Your task to perform on an android device: check battery use Image 0: 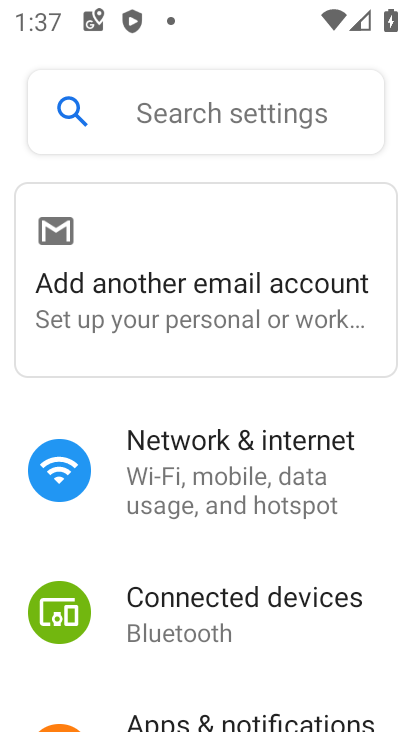
Step 0: drag from (183, 654) to (237, 354)
Your task to perform on an android device: check battery use Image 1: 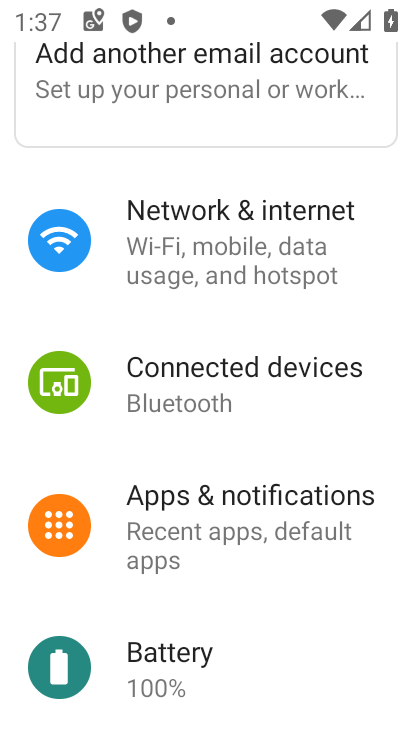
Step 1: click (209, 687)
Your task to perform on an android device: check battery use Image 2: 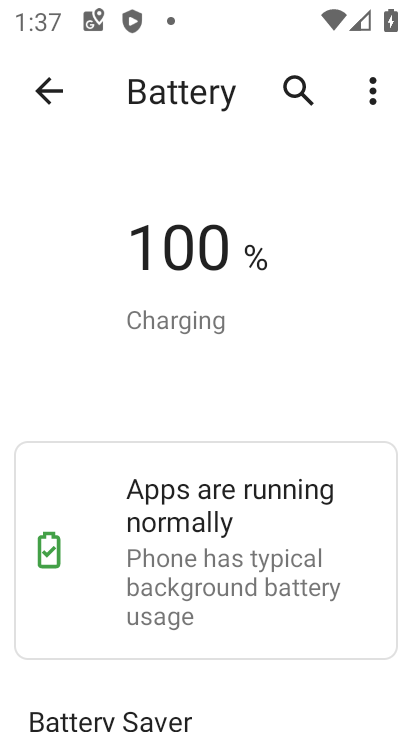
Step 2: drag from (209, 687) to (260, 451)
Your task to perform on an android device: check battery use Image 3: 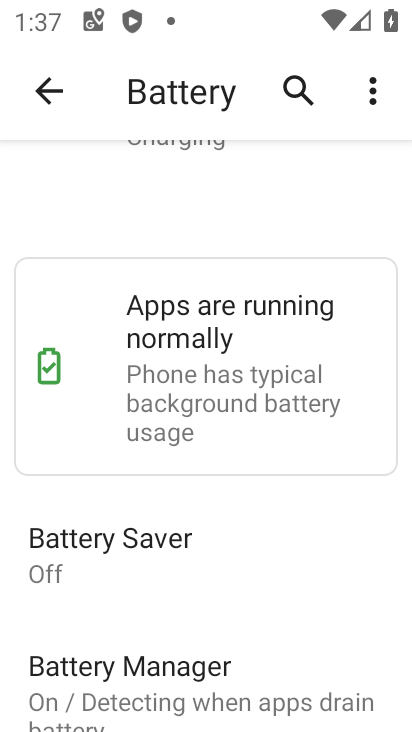
Step 3: click (377, 107)
Your task to perform on an android device: check battery use Image 4: 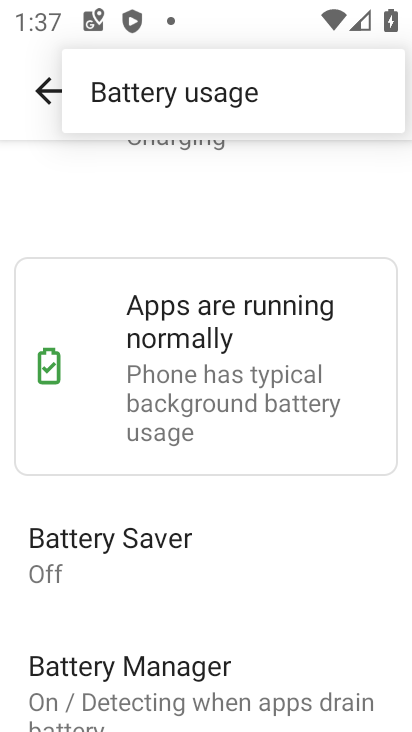
Step 4: click (286, 102)
Your task to perform on an android device: check battery use Image 5: 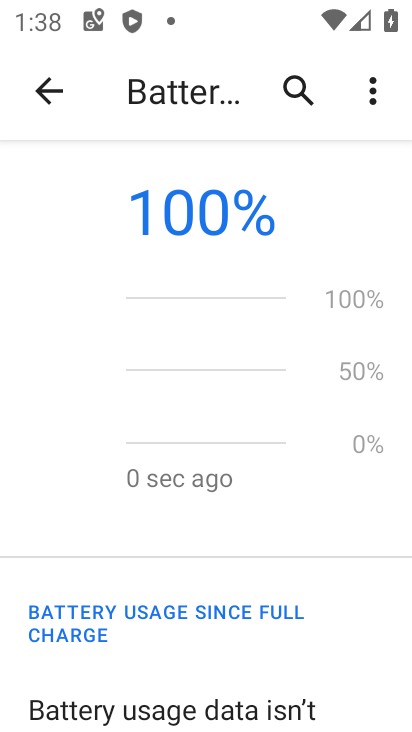
Step 5: click (383, 88)
Your task to perform on an android device: check battery use Image 6: 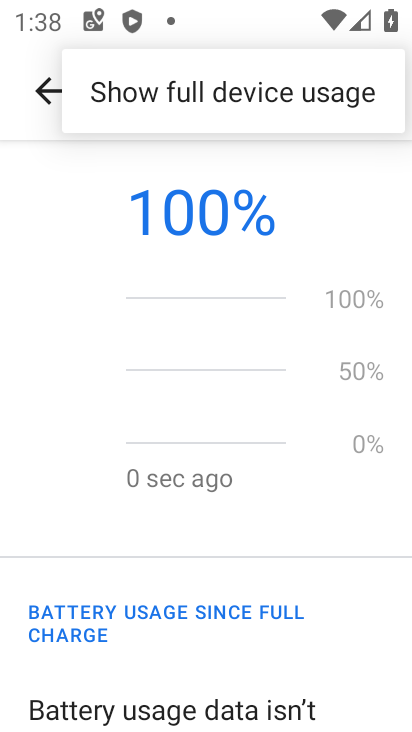
Step 6: task complete